Your task to perform on an android device: Open calendar and show me the second week of next month Image 0: 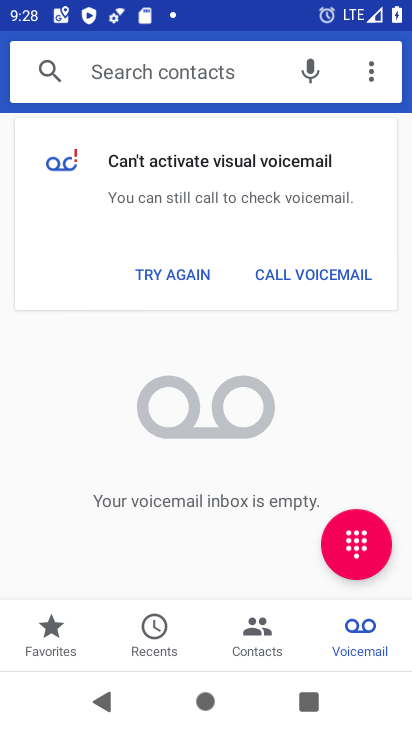
Step 0: press home button
Your task to perform on an android device: Open calendar and show me the second week of next month Image 1: 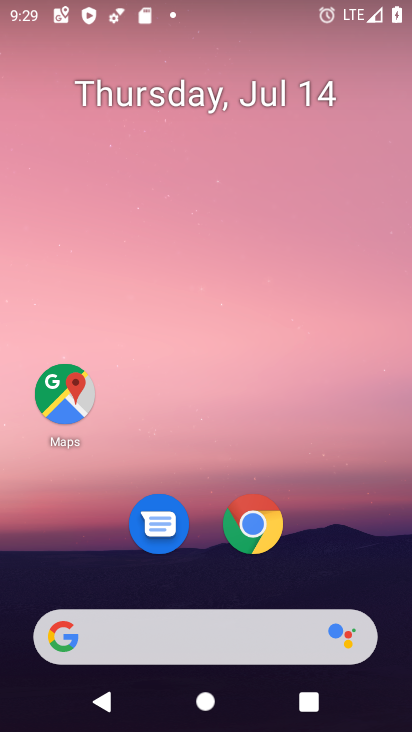
Step 1: drag from (260, 449) to (276, 20)
Your task to perform on an android device: Open calendar and show me the second week of next month Image 2: 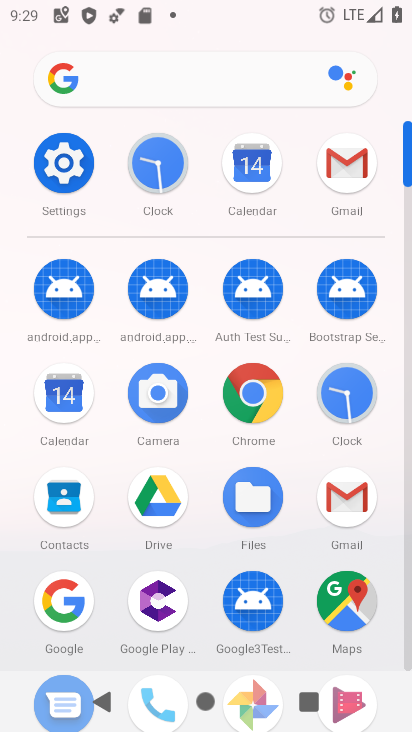
Step 2: click (258, 174)
Your task to perform on an android device: Open calendar and show me the second week of next month Image 3: 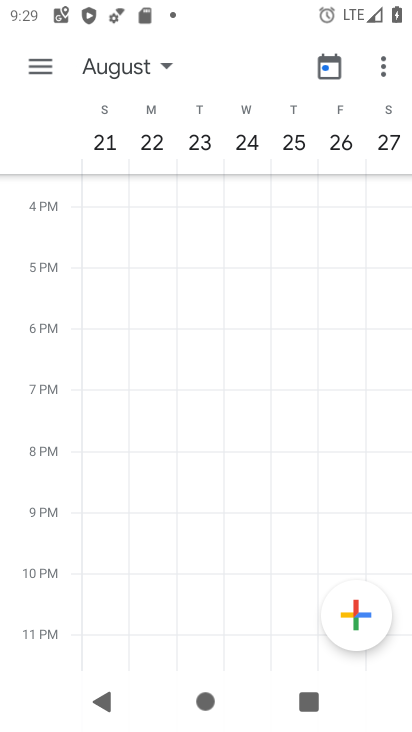
Step 3: task complete